Your task to perform on an android device: set default search engine in the chrome app Image 0: 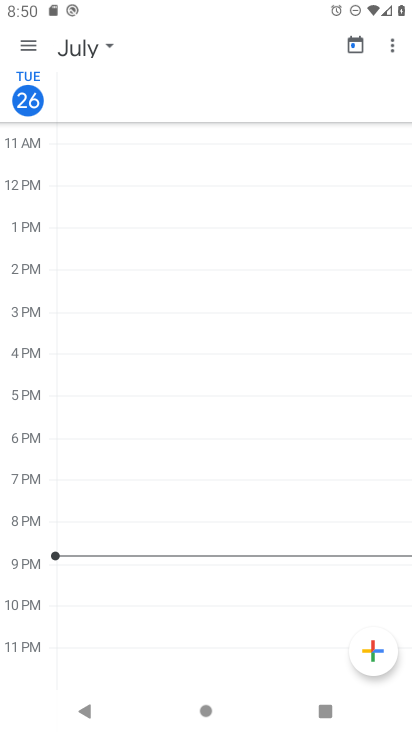
Step 0: press home button
Your task to perform on an android device: set default search engine in the chrome app Image 1: 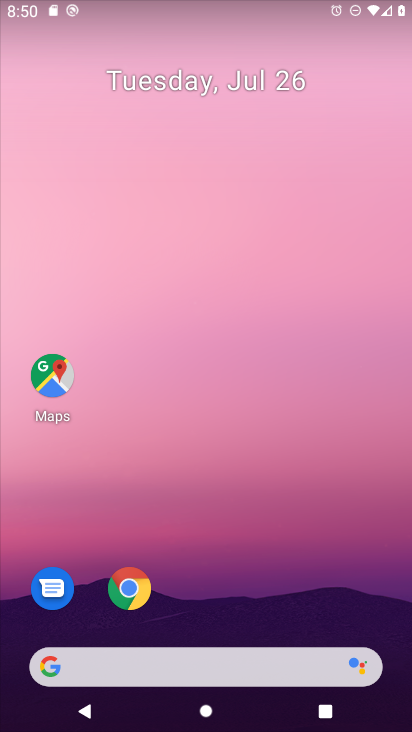
Step 1: drag from (178, 677) to (180, 128)
Your task to perform on an android device: set default search engine in the chrome app Image 2: 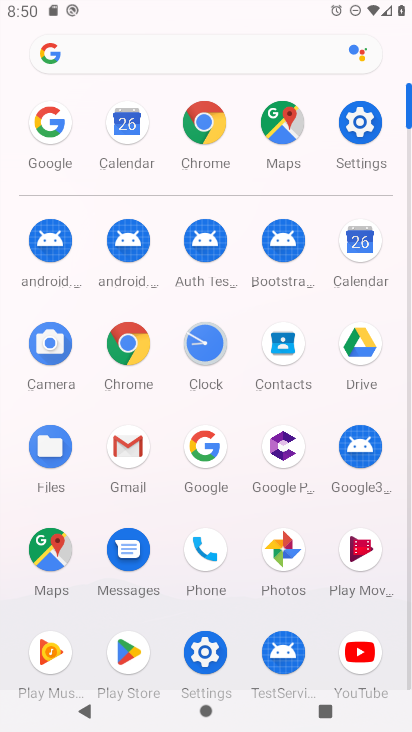
Step 2: click (144, 372)
Your task to perform on an android device: set default search engine in the chrome app Image 3: 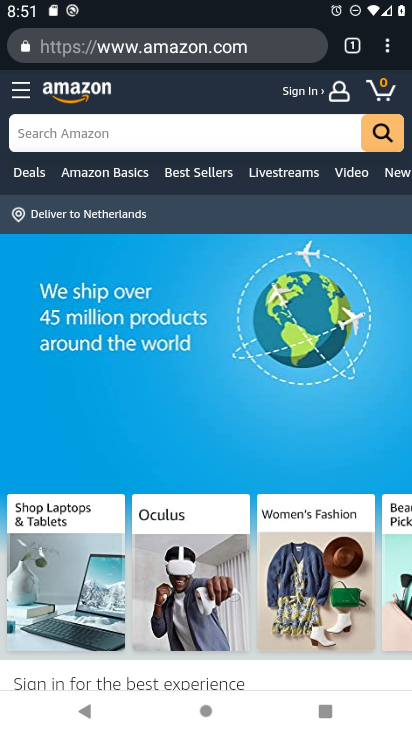
Step 3: click (388, 49)
Your task to perform on an android device: set default search engine in the chrome app Image 4: 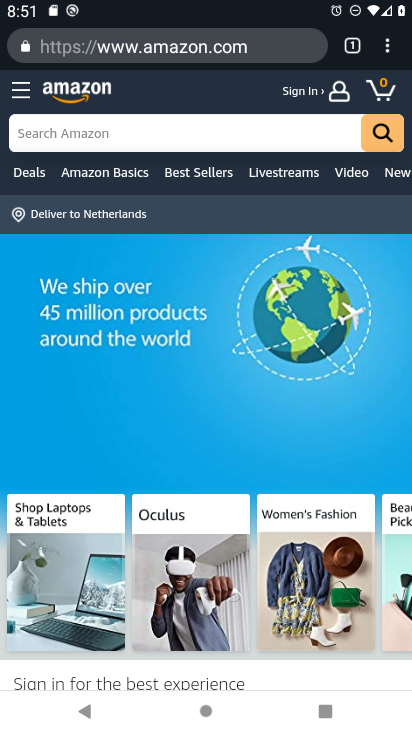
Step 4: click (391, 49)
Your task to perform on an android device: set default search engine in the chrome app Image 5: 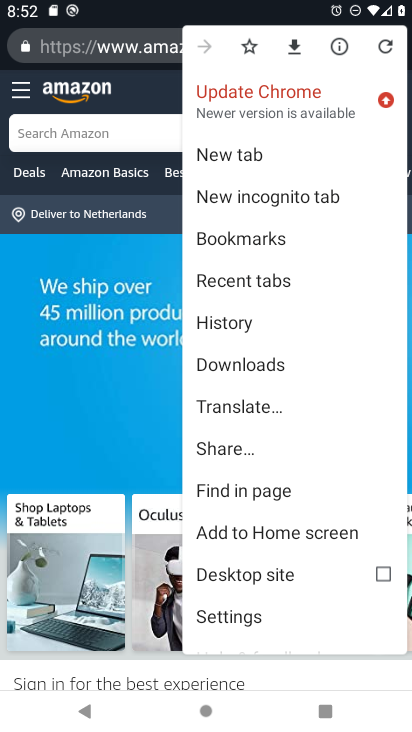
Step 5: click (239, 620)
Your task to perform on an android device: set default search engine in the chrome app Image 6: 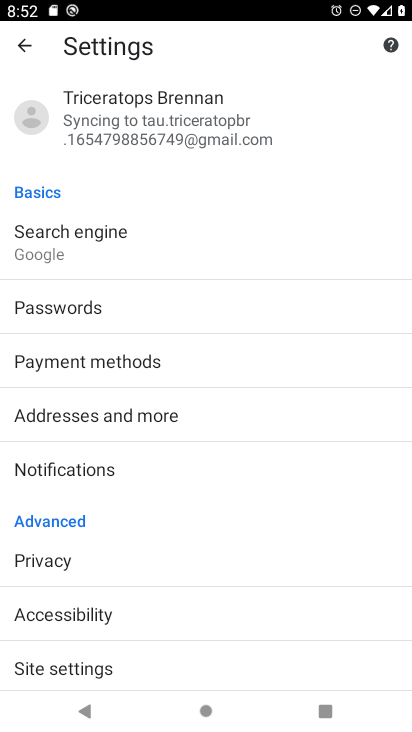
Step 6: click (43, 248)
Your task to perform on an android device: set default search engine in the chrome app Image 7: 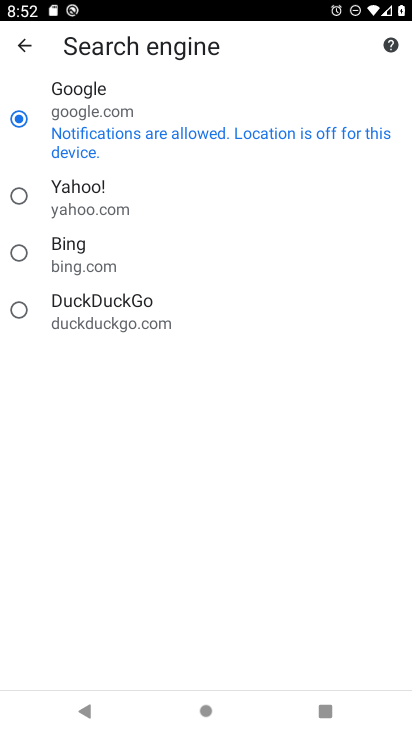
Step 7: task complete